Your task to perform on an android device: toggle show notifications on the lock screen Image 0: 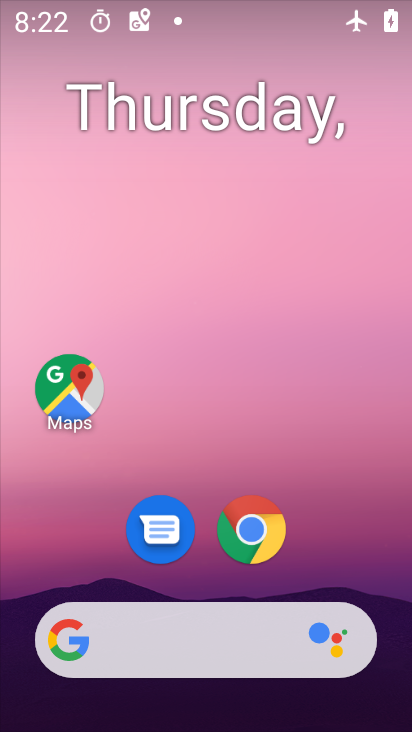
Step 0: drag from (376, 557) to (365, 177)
Your task to perform on an android device: toggle show notifications on the lock screen Image 1: 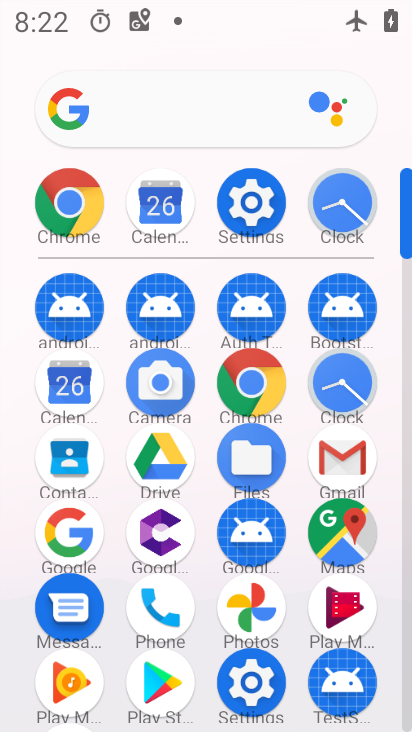
Step 1: click (265, 215)
Your task to perform on an android device: toggle show notifications on the lock screen Image 2: 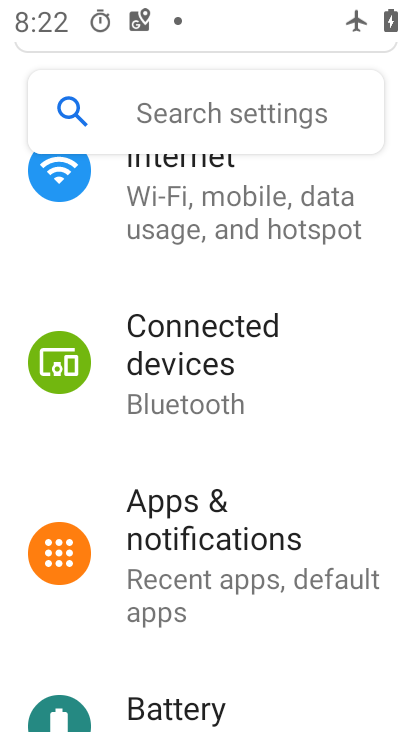
Step 2: drag from (328, 399) to (343, 298)
Your task to perform on an android device: toggle show notifications on the lock screen Image 3: 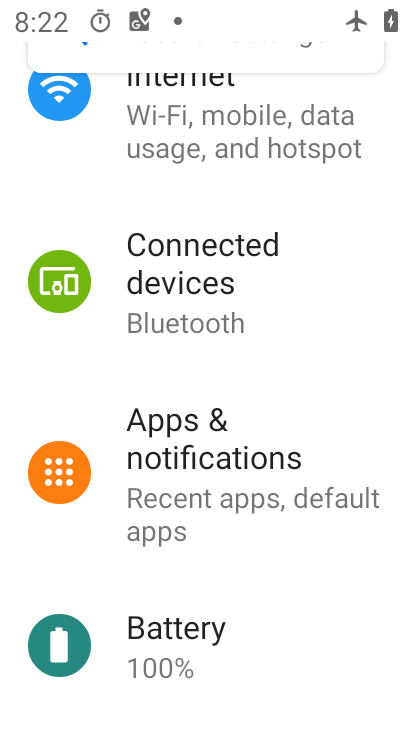
Step 3: drag from (358, 412) to (342, 288)
Your task to perform on an android device: toggle show notifications on the lock screen Image 4: 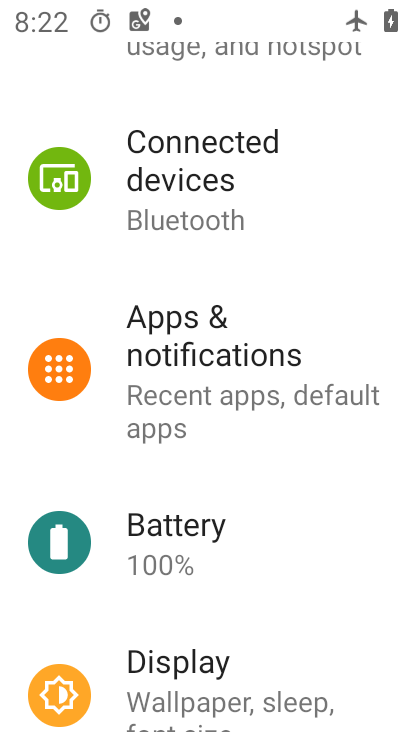
Step 4: drag from (346, 463) to (357, 345)
Your task to perform on an android device: toggle show notifications on the lock screen Image 5: 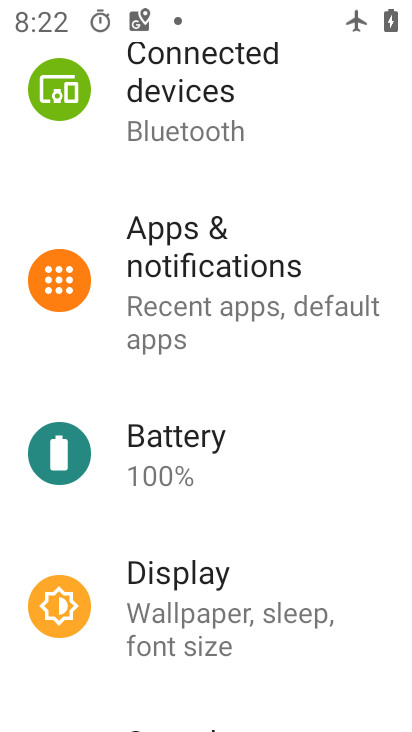
Step 5: drag from (349, 449) to (334, 337)
Your task to perform on an android device: toggle show notifications on the lock screen Image 6: 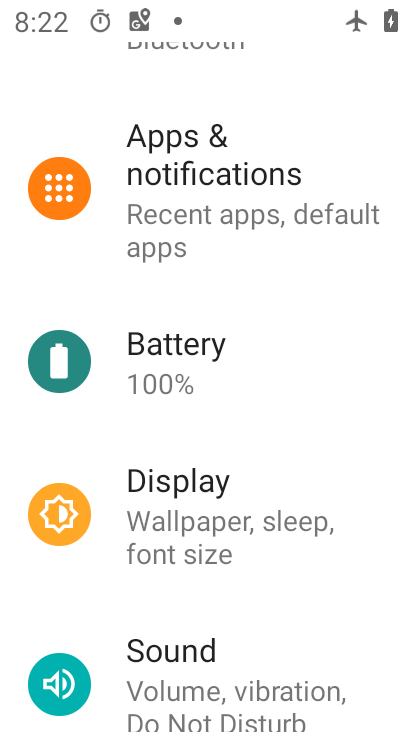
Step 6: click (307, 202)
Your task to perform on an android device: toggle show notifications on the lock screen Image 7: 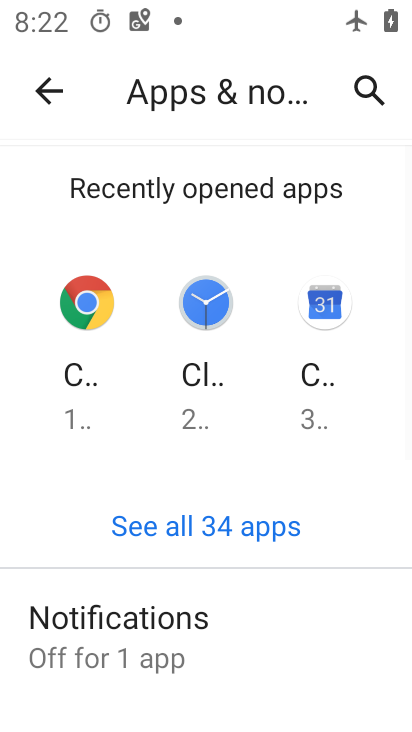
Step 7: drag from (341, 525) to (360, 400)
Your task to perform on an android device: toggle show notifications on the lock screen Image 8: 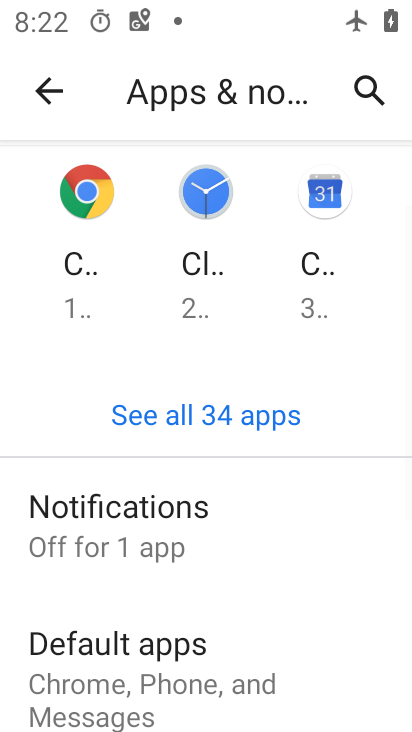
Step 8: drag from (349, 521) to (358, 403)
Your task to perform on an android device: toggle show notifications on the lock screen Image 9: 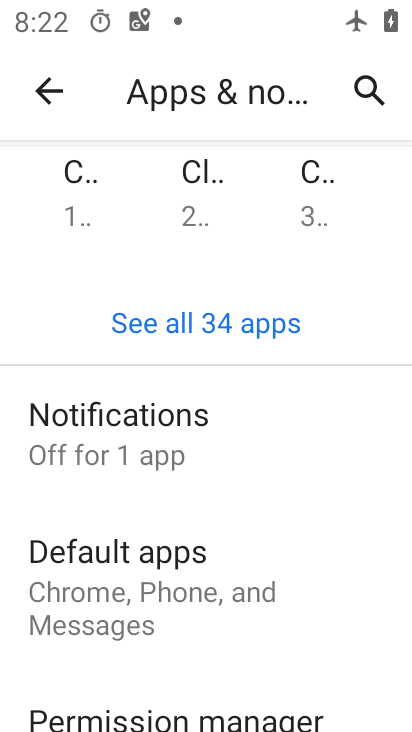
Step 9: drag from (349, 506) to (359, 403)
Your task to perform on an android device: toggle show notifications on the lock screen Image 10: 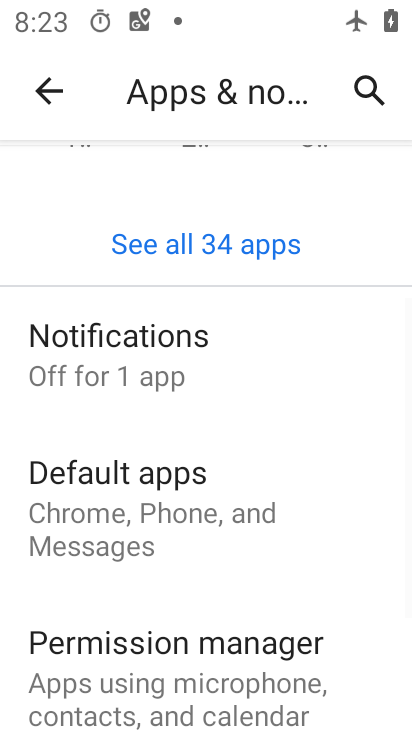
Step 10: click (167, 381)
Your task to perform on an android device: toggle show notifications on the lock screen Image 11: 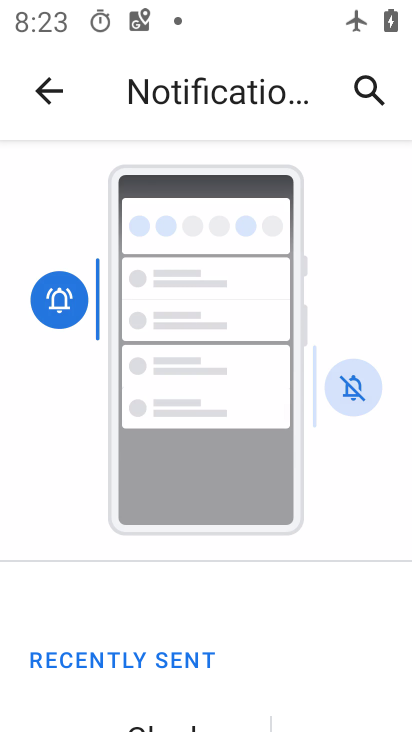
Step 11: drag from (269, 599) to (274, 499)
Your task to perform on an android device: toggle show notifications on the lock screen Image 12: 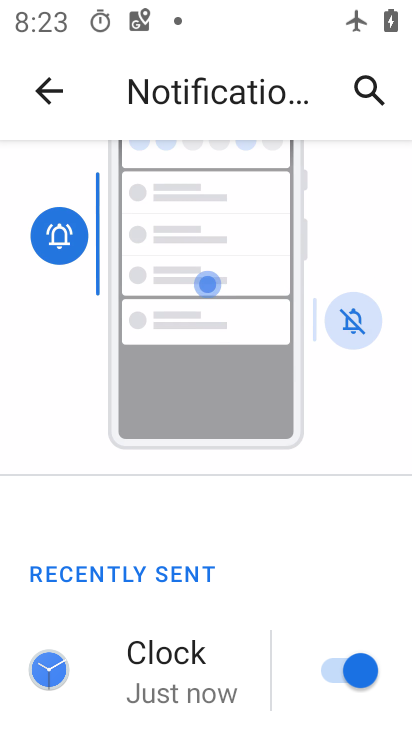
Step 12: drag from (261, 582) to (270, 483)
Your task to perform on an android device: toggle show notifications on the lock screen Image 13: 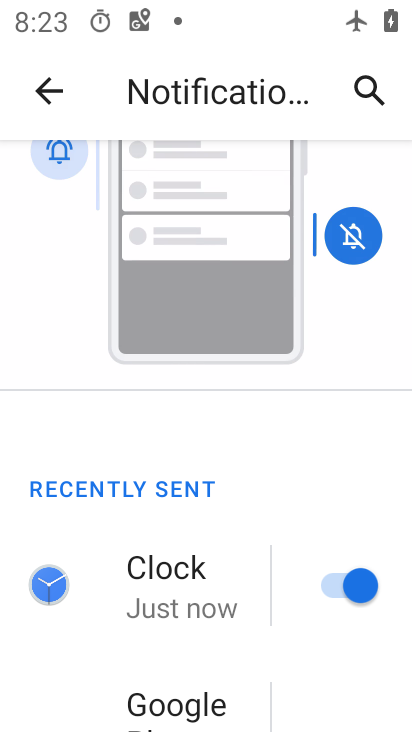
Step 13: drag from (252, 648) to (260, 506)
Your task to perform on an android device: toggle show notifications on the lock screen Image 14: 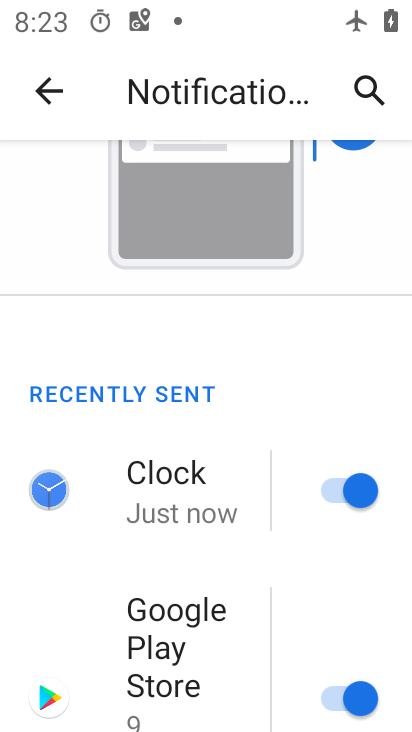
Step 14: drag from (246, 613) to (245, 522)
Your task to perform on an android device: toggle show notifications on the lock screen Image 15: 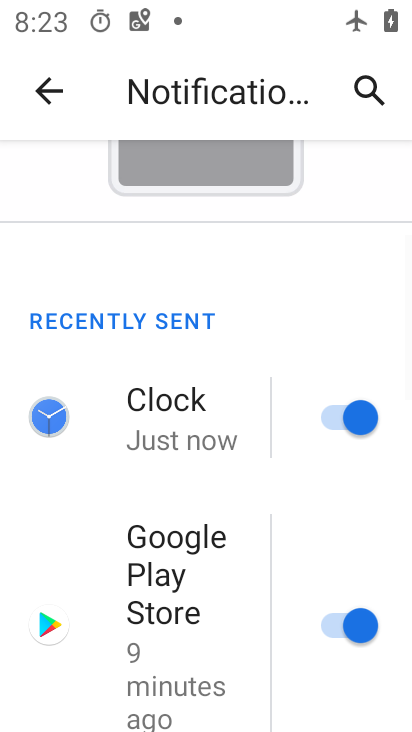
Step 15: drag from (232, 625) to (236, 531)
Your task to perform on an android device: toggle show notifications on the lock screen Image 16: 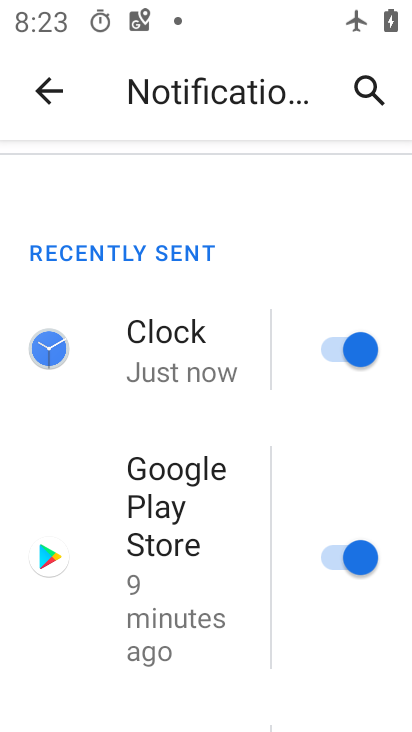
Step 16: drag from (232, 621) to (231, 497)
Your task to perform on an android device: toggle show notifications on the lock screen Image 17: 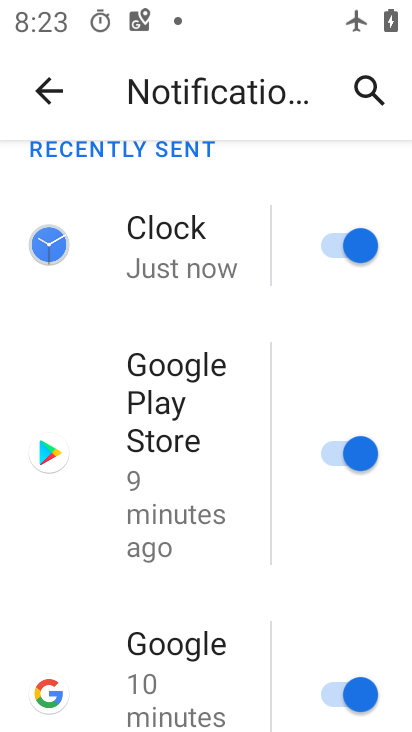
Step 17: drag from (243, 620) to (257, 531)
Your task to perform on an android device: toggle show notifications on the lock screen Image 18: 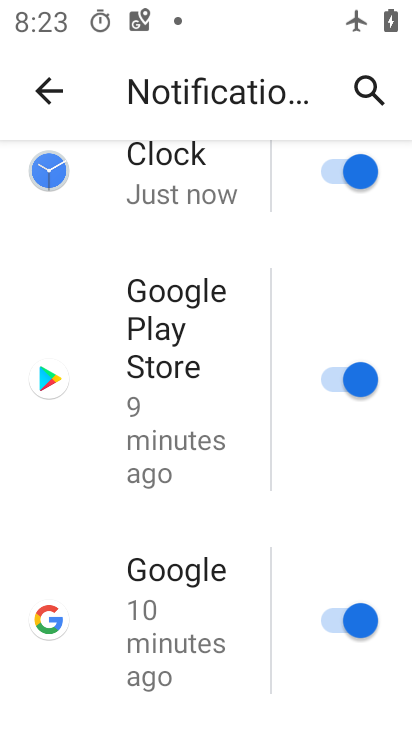
Step 18: drag from (254, 625) to (263, 541)
Your task to perform on an android device: toggle show notifications on the lock screen Image 19: 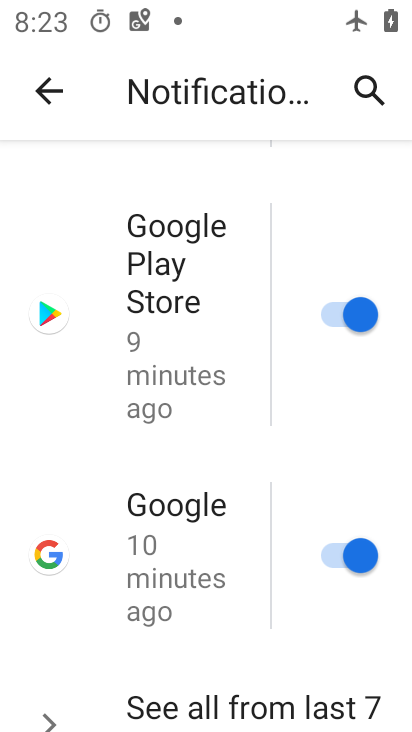
Step 19: drag from (258, 605) to (256, 498)
Your task to perform on an android device: toggle show notifications on the lock screen Image 20: 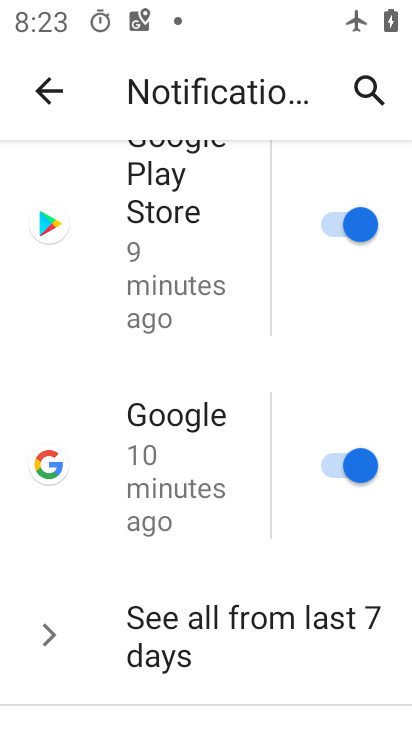
Step 20: drag from (268, 637) to (292, 514)
Your task to perform on an android device: toggle show notifications on the lock screen Image 21: 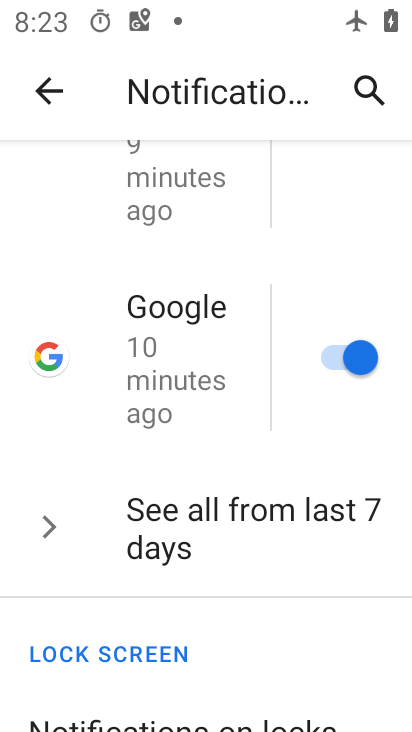
Step 21: drag from (360, 630) to (363, 524)
Your task to perform on an android device: toggle show notifications on the lock screen Image 22: 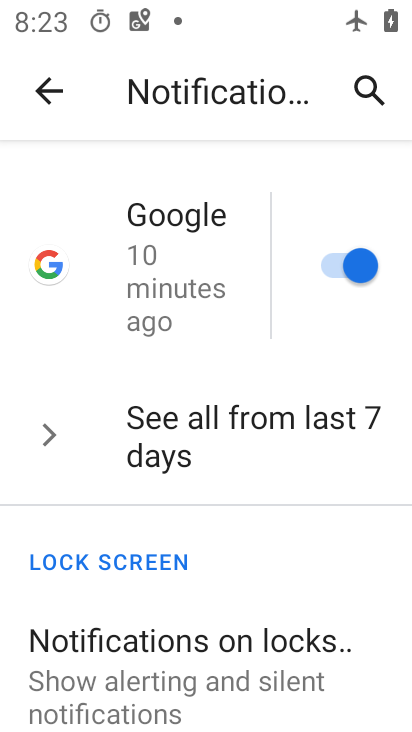
Step 22: drag from (369, 626) to (382, 489)
Your task to perform on an android device: toggle show notifications on the lock screen Image 23: 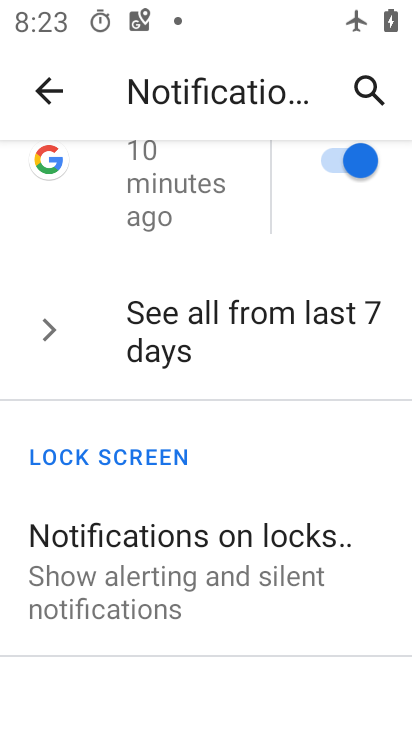
Step 23: click (294, 562)
Your task to perform on an android device: toggle show notifications on the lock screen Image 24: 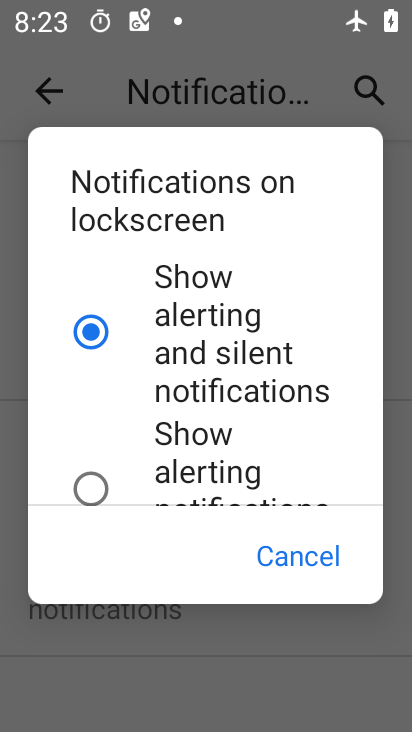
Step 24: drag from (310, 328) to (322, 212)
Your task to perform on an android device: toggle show notifications on the lock screen Image 25: 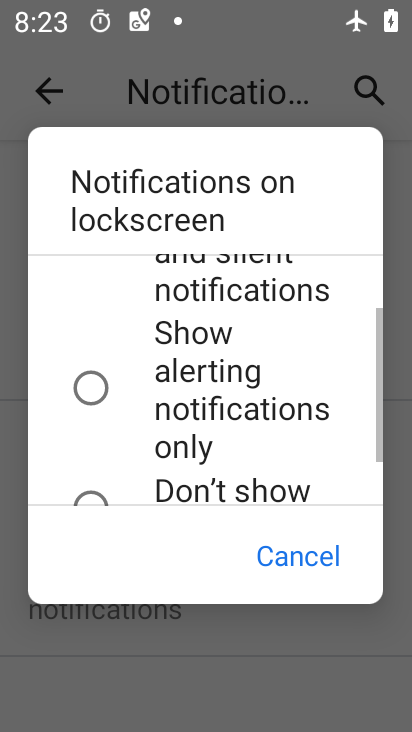
Step 25: click (247, 388)
Your task to perform on an android device: toggle show notifications on the lock screen Image 26: 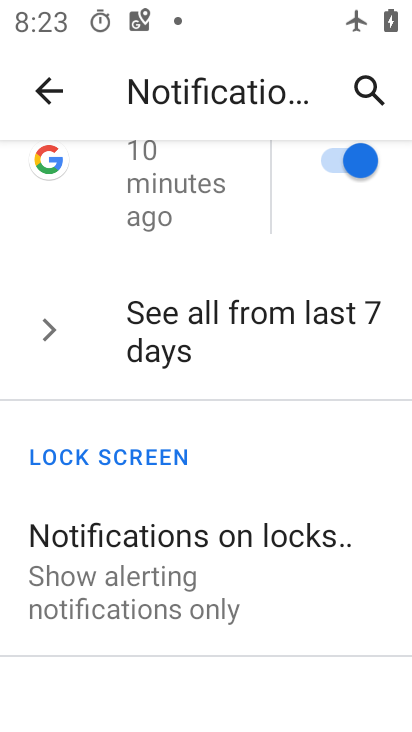
Step 26: task complete